Your task to perform on an android device: View the shopping cart on target.com. Add "acer predator" to the cart on target.com Image 0: 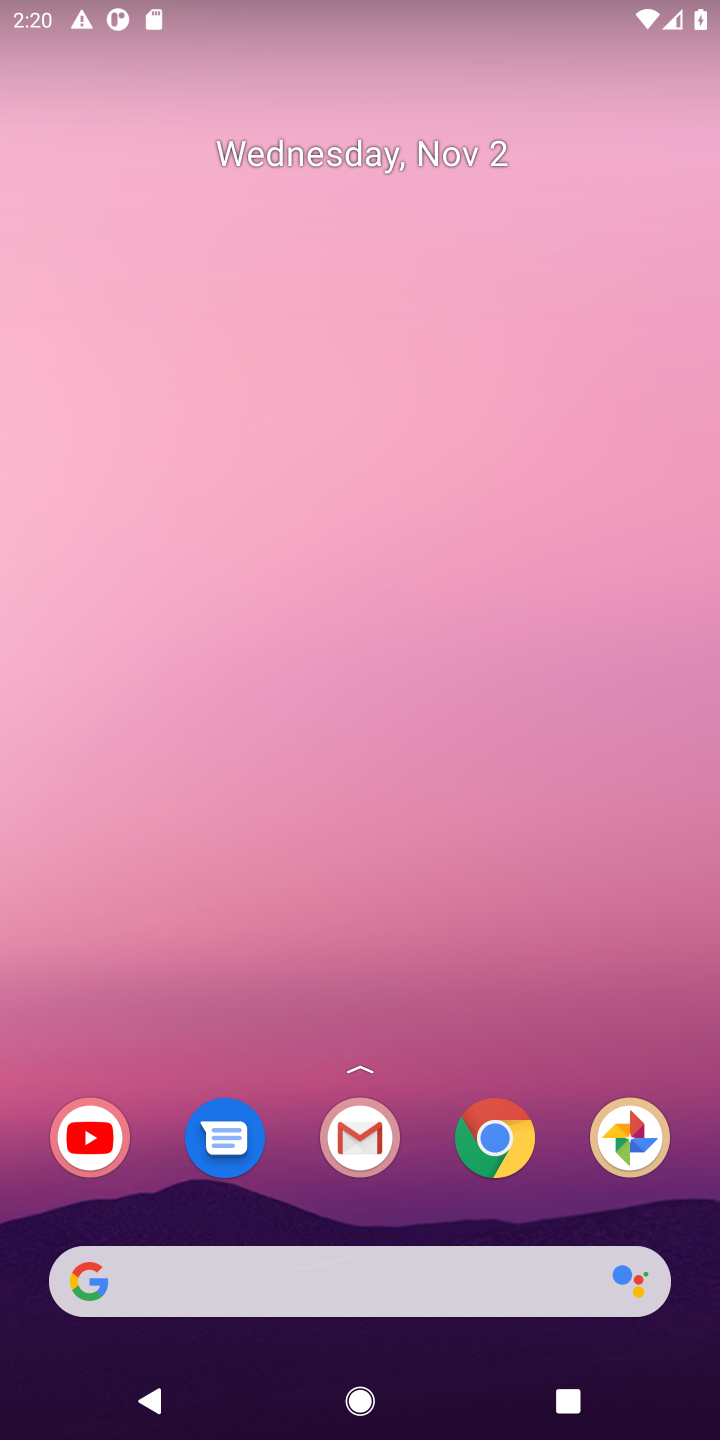
Step 0: press home button
Your task to perform on an android device: View the shopping cart on target.com. Add "acer predator" to the cart on target.com Image 1: 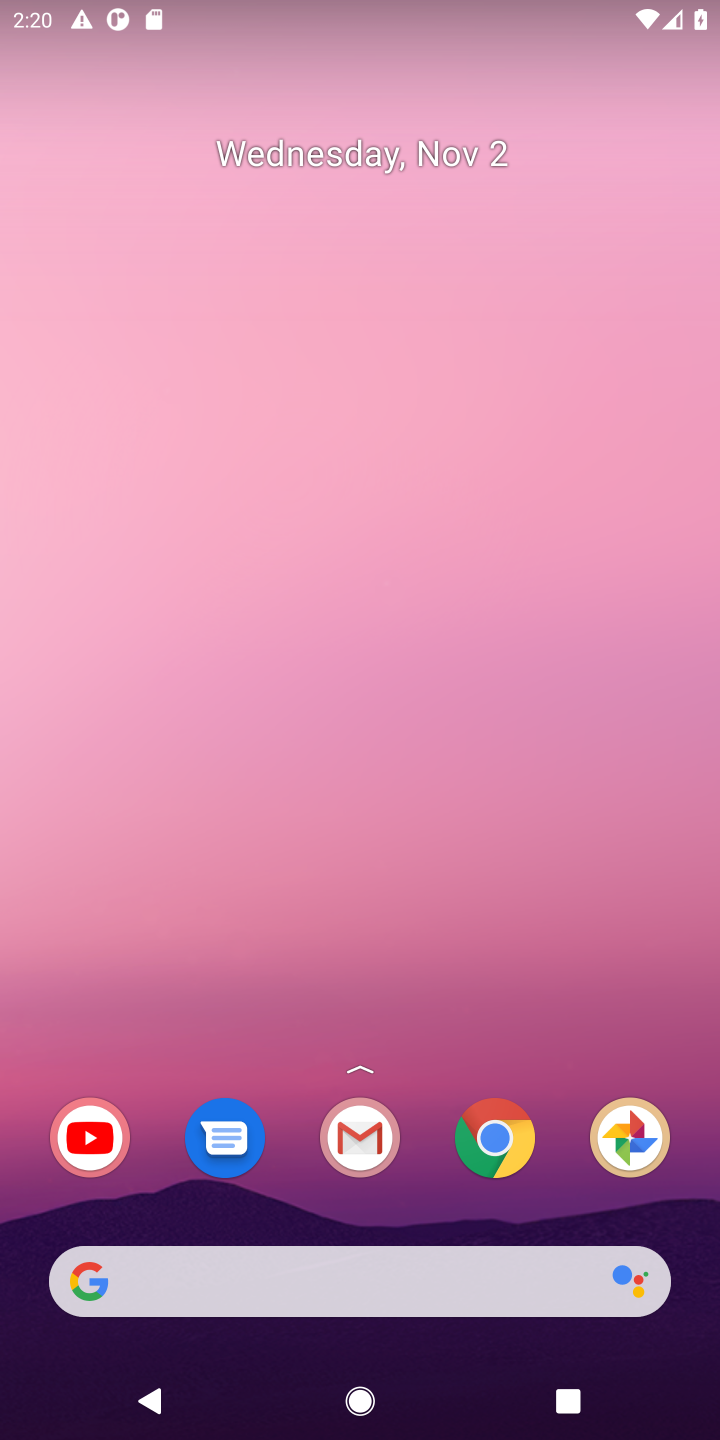
Step 1: click (155, 1274)
Your task to perform on an android device: View the shopping cart on target.com. Add "acer predator" to the cart on target.com Image 2: 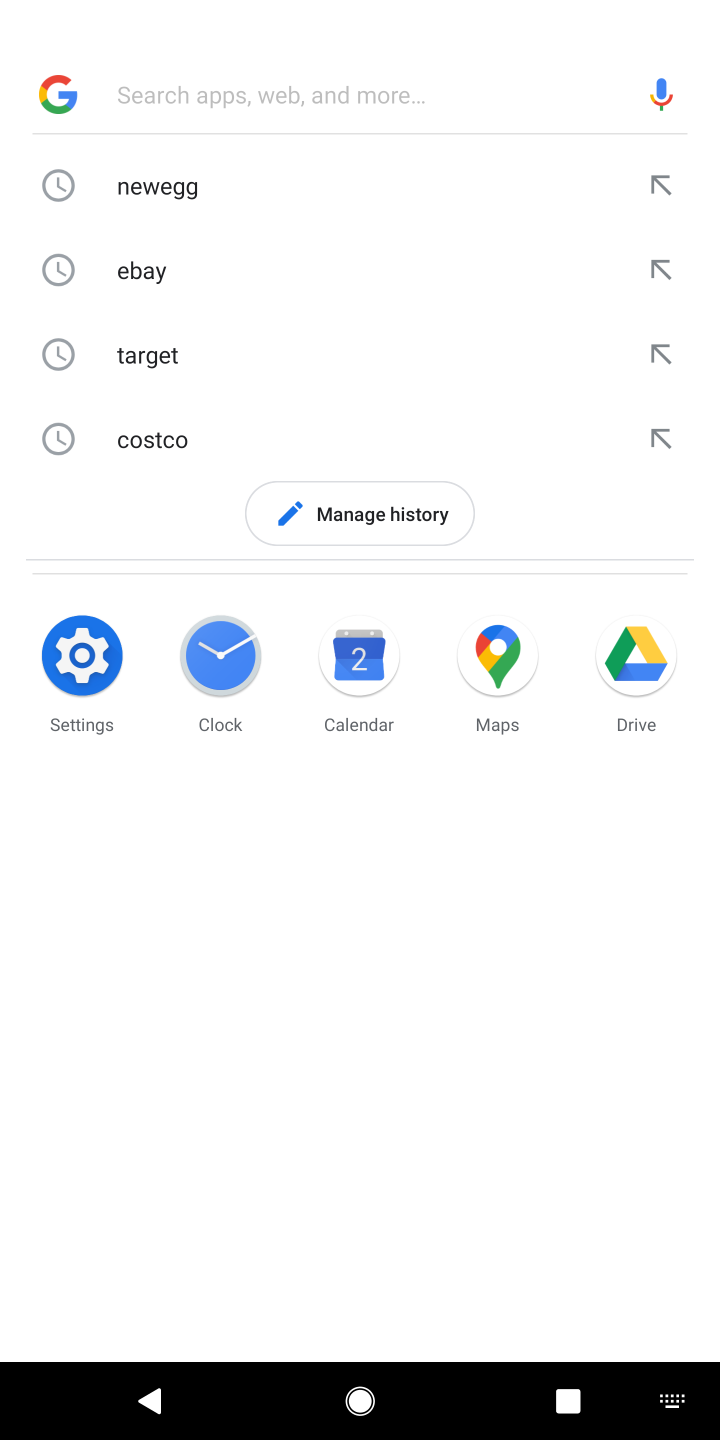
Step 2: type "target.com"
Your task to perform on an android device: View the shopping cart on target.com. Add "acer predator" to the cart on target.com Image 3: 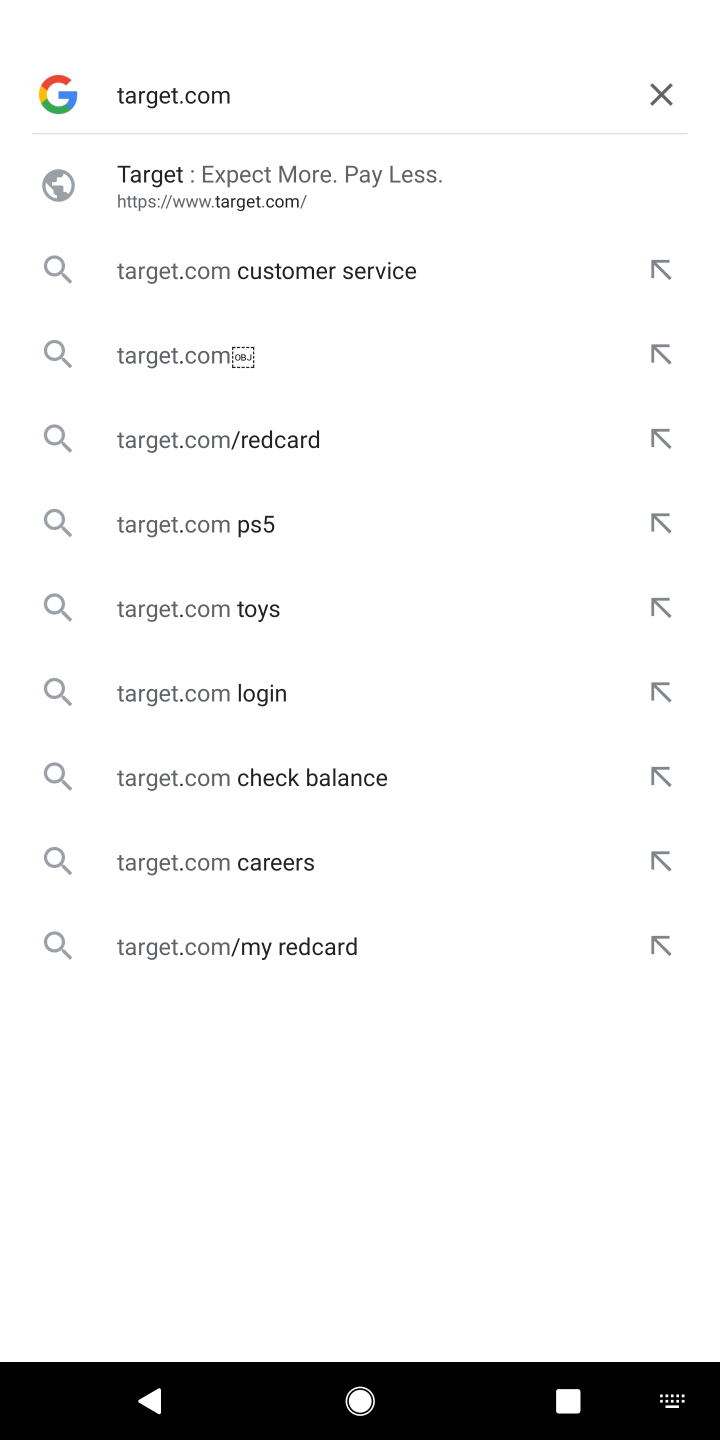
Step 3: press enter
Your task to perform on an android device: View the shopping cart on target.com. Add "acer predator" to the cart on target.com Image 4: 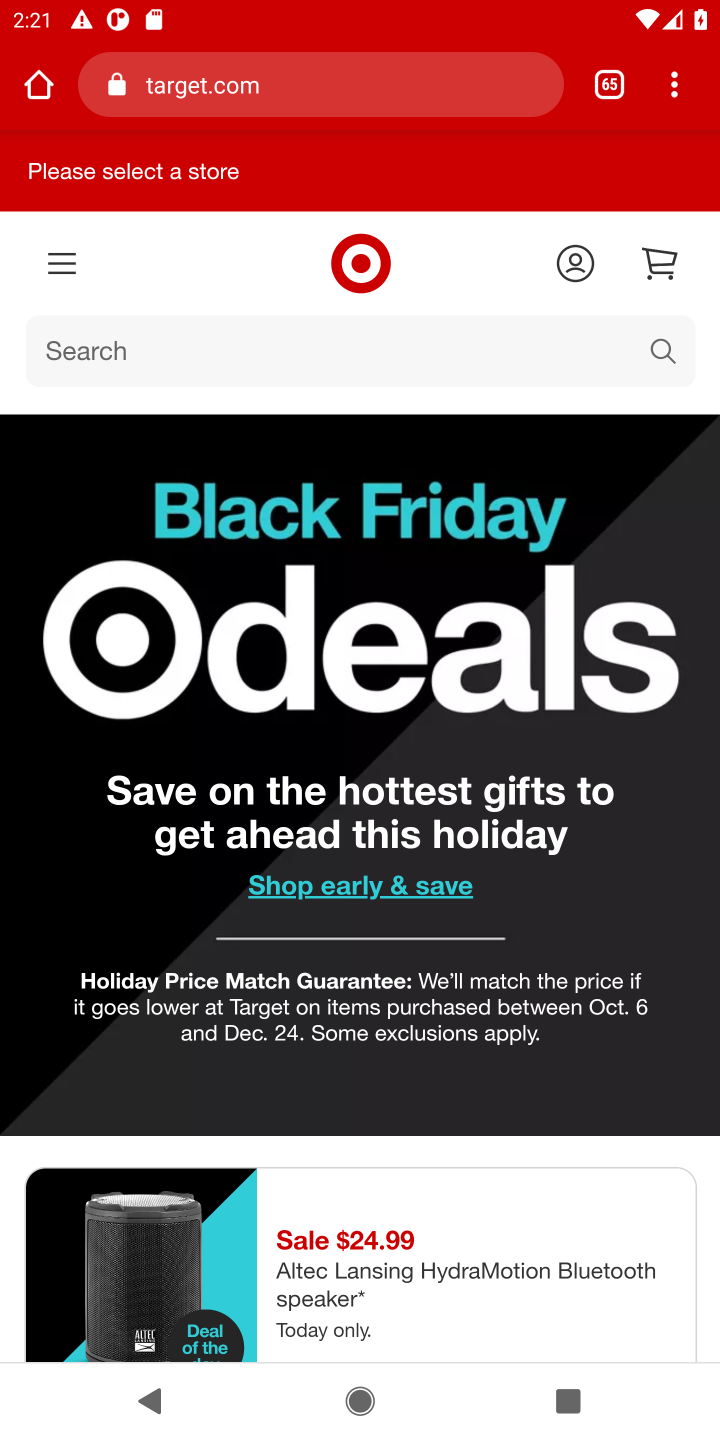
Step 4: click (657, 263)
Your task to perform on an android device: View the shopping cart on target.com. Add "acer predator" to the cart on target.com Image 5: 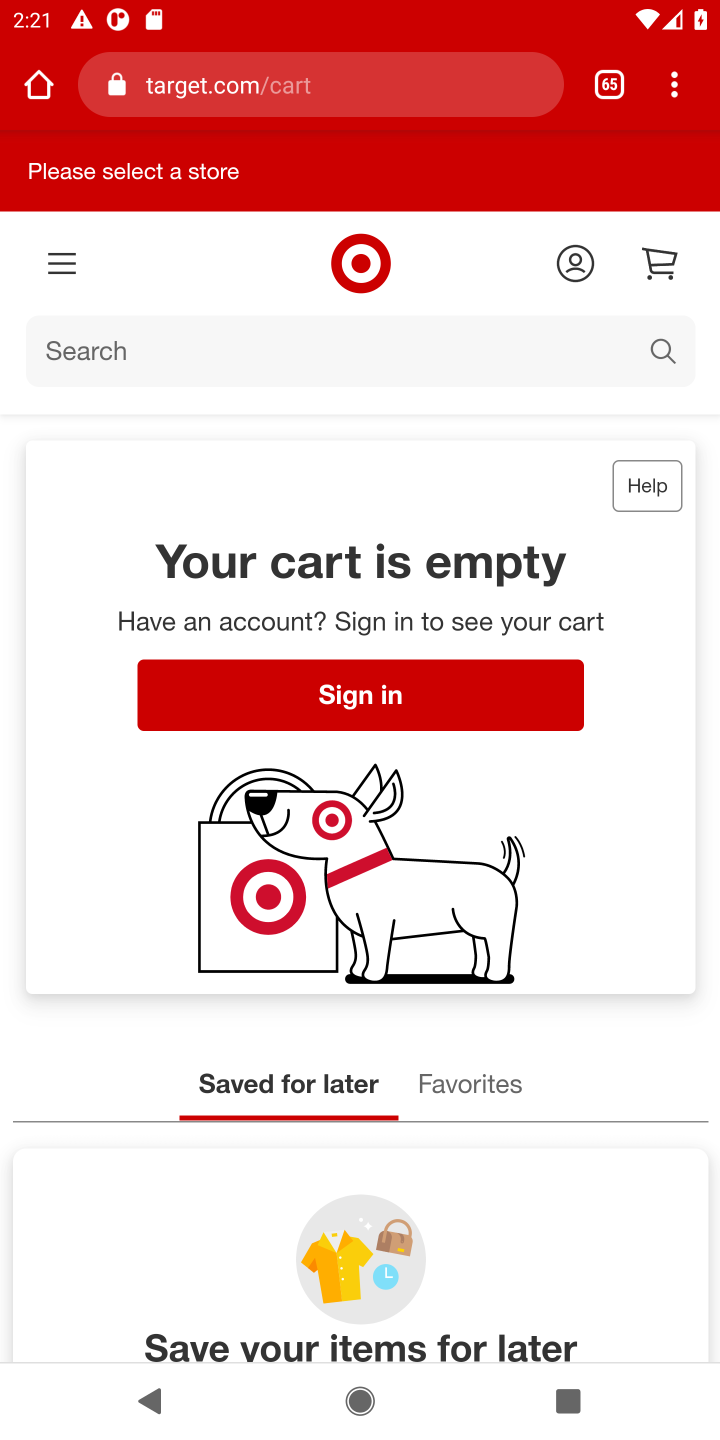
Step 5: click (167, 357)
Your task to perform on an android device: View the shopping cart on target.com. Add "acer predator" to the cart on target.com Image 6: 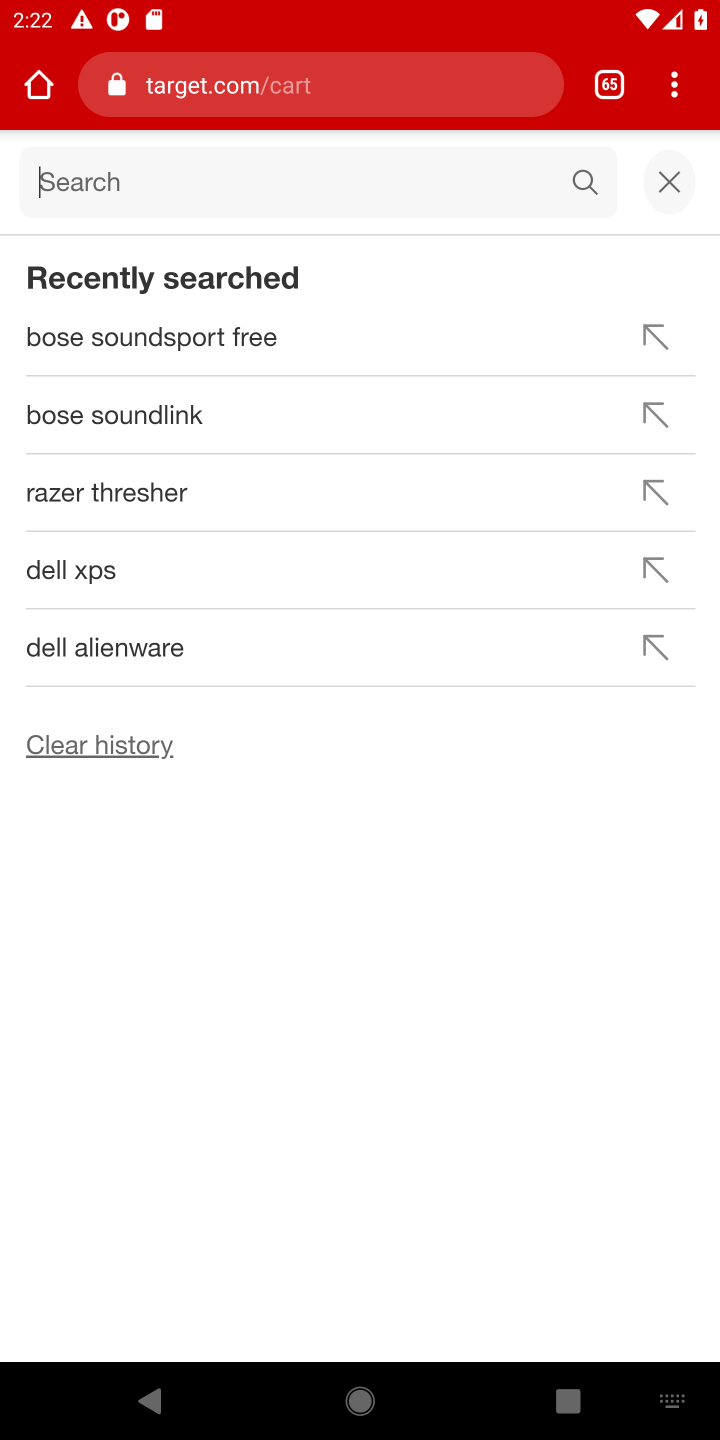
Step 6: press enter
Your task to perform on an android device: View the shopping cart on target.com. Add "acer predator" to the cart on target.com Image 7: 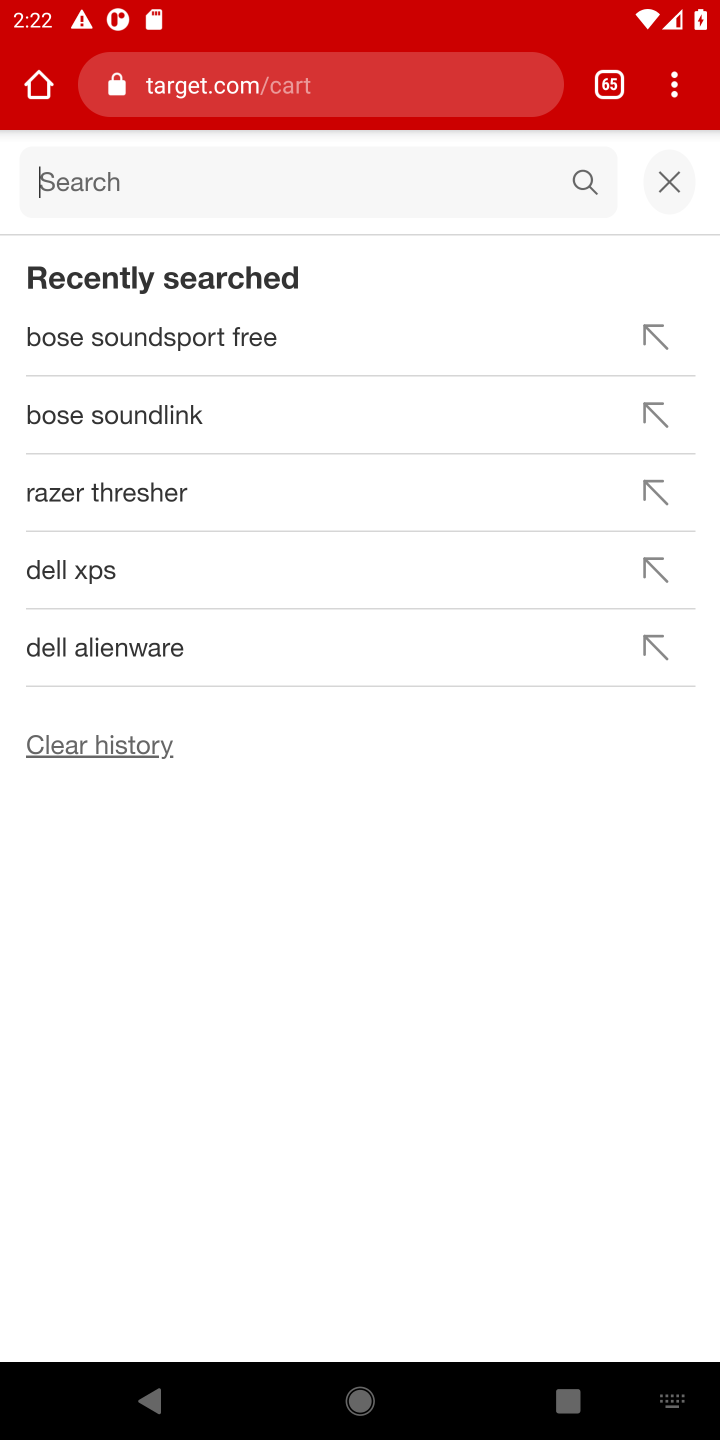
Step 7: type "acer predator"
Your task to perform on an android device: View the shopping cart on target.com. Add "acer predator" to the cart on target.com Image 8: 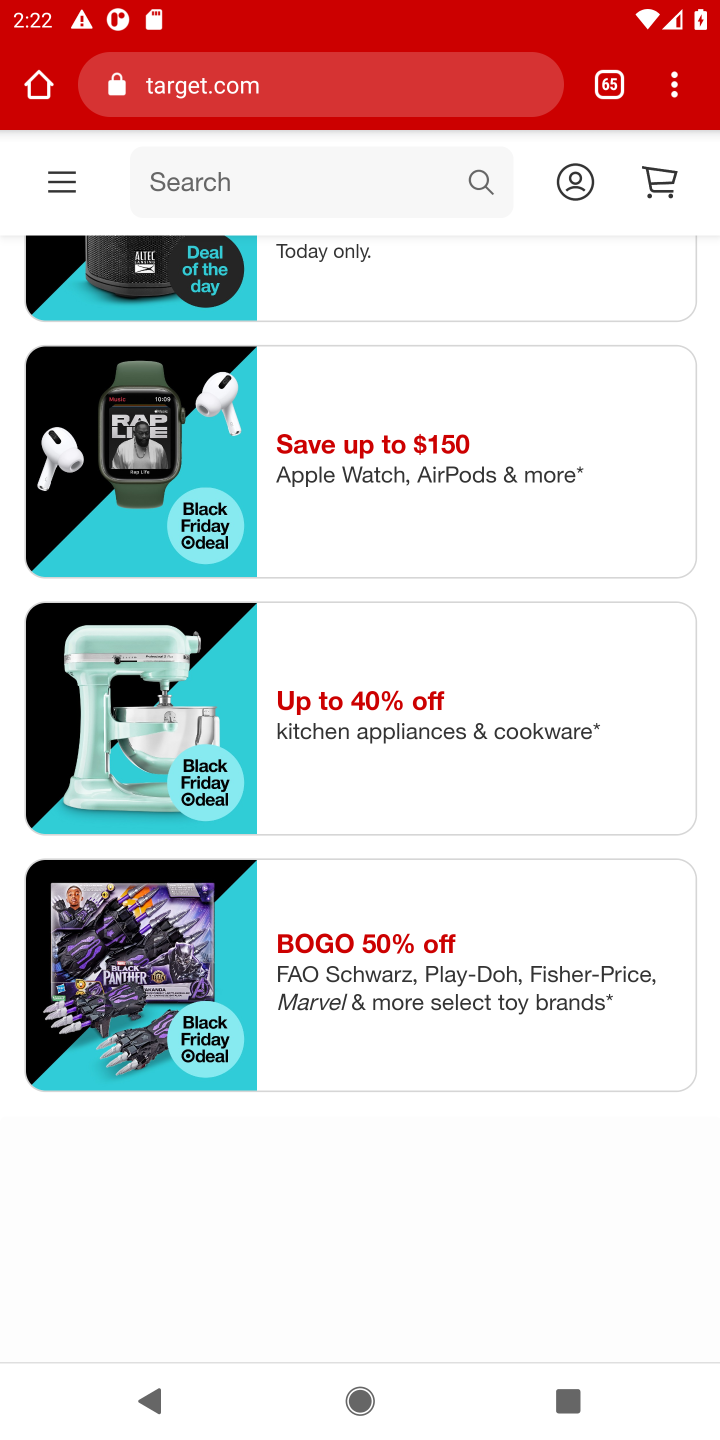
Step 8: drag from (503, 408) to (461, 757)
Your task to perform on an android device: View the shopping cart on target.com. Add "acer predator" to the cart on target.com Image 9: 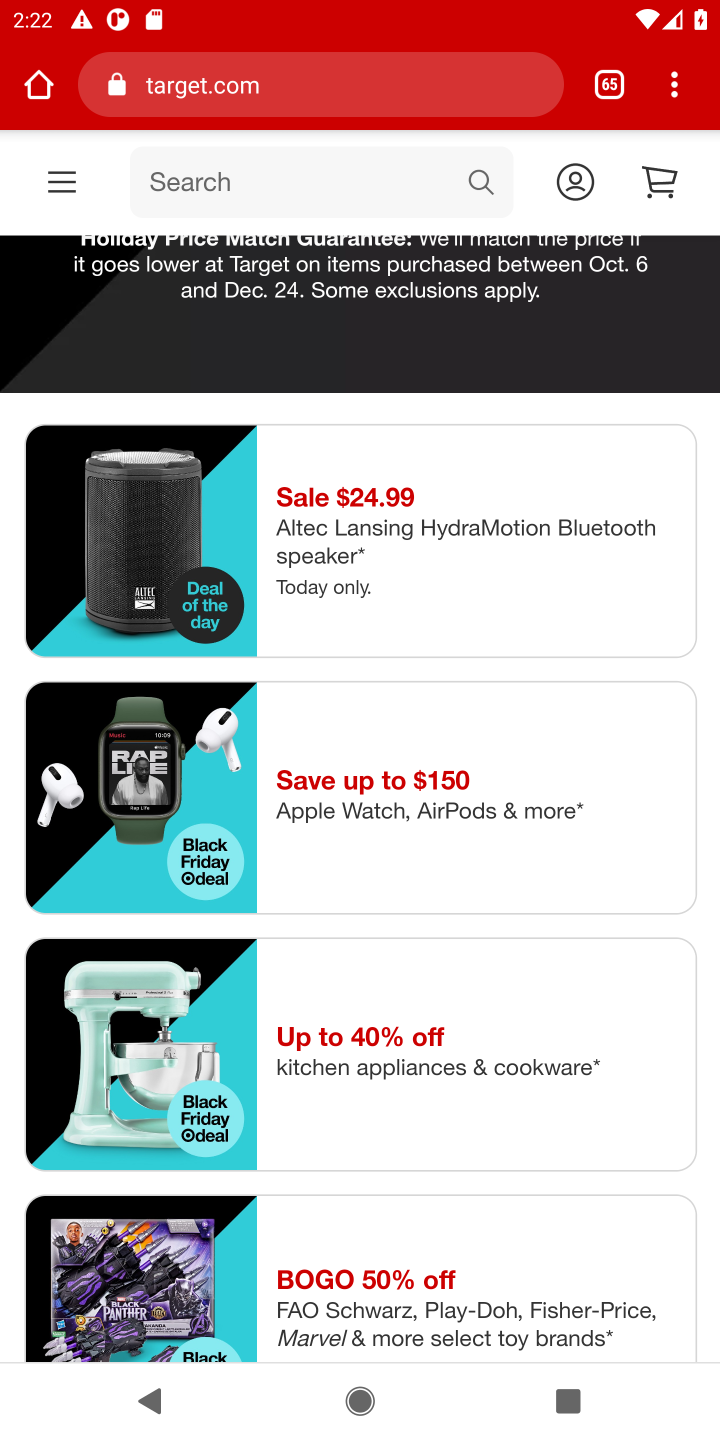
Step 9: click (240, 187)
Your task to perform on an android device: View the shopping cart on target.com. Add "acer predator" to the cart on target.com Image 10: 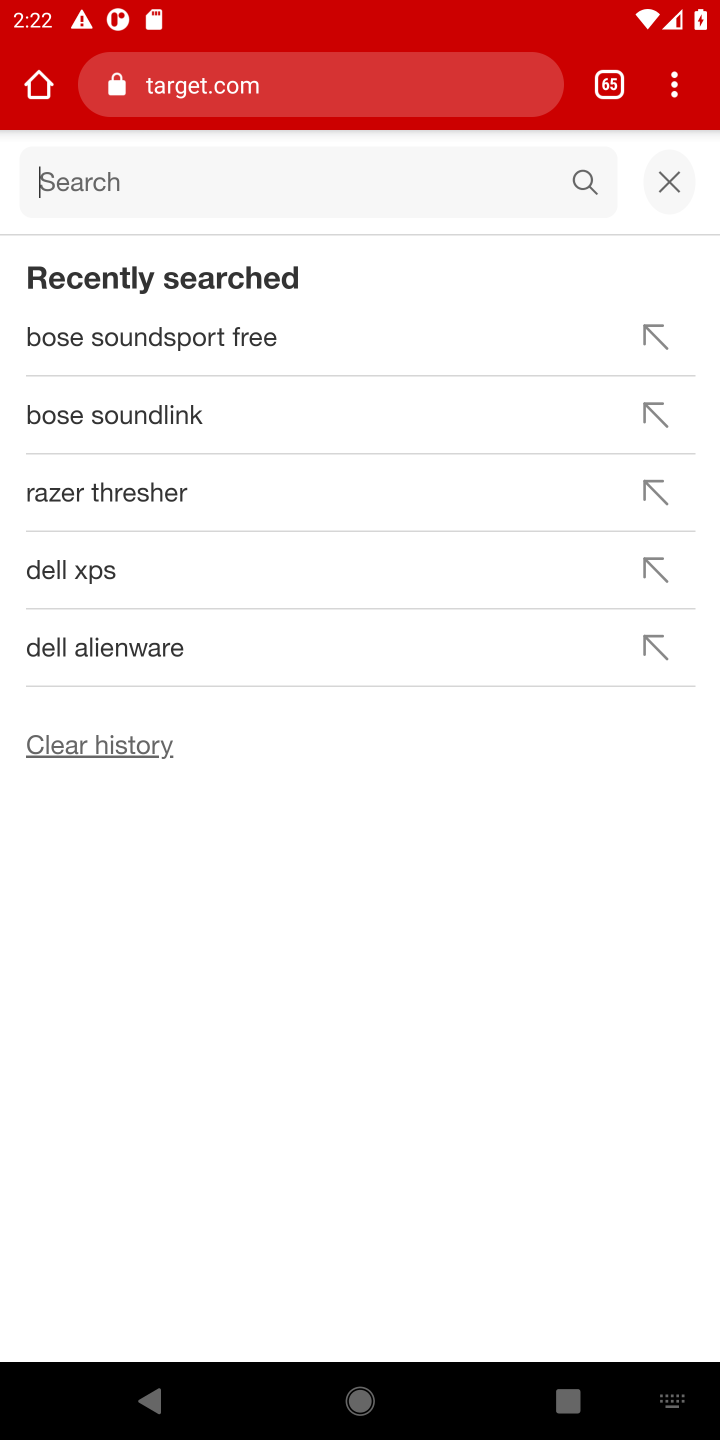
Step 10: type "acer predator"
Your task to perform on an android device: View the shopping cart on target.com. Add "acer predator" to the cart on target.com Image 11: 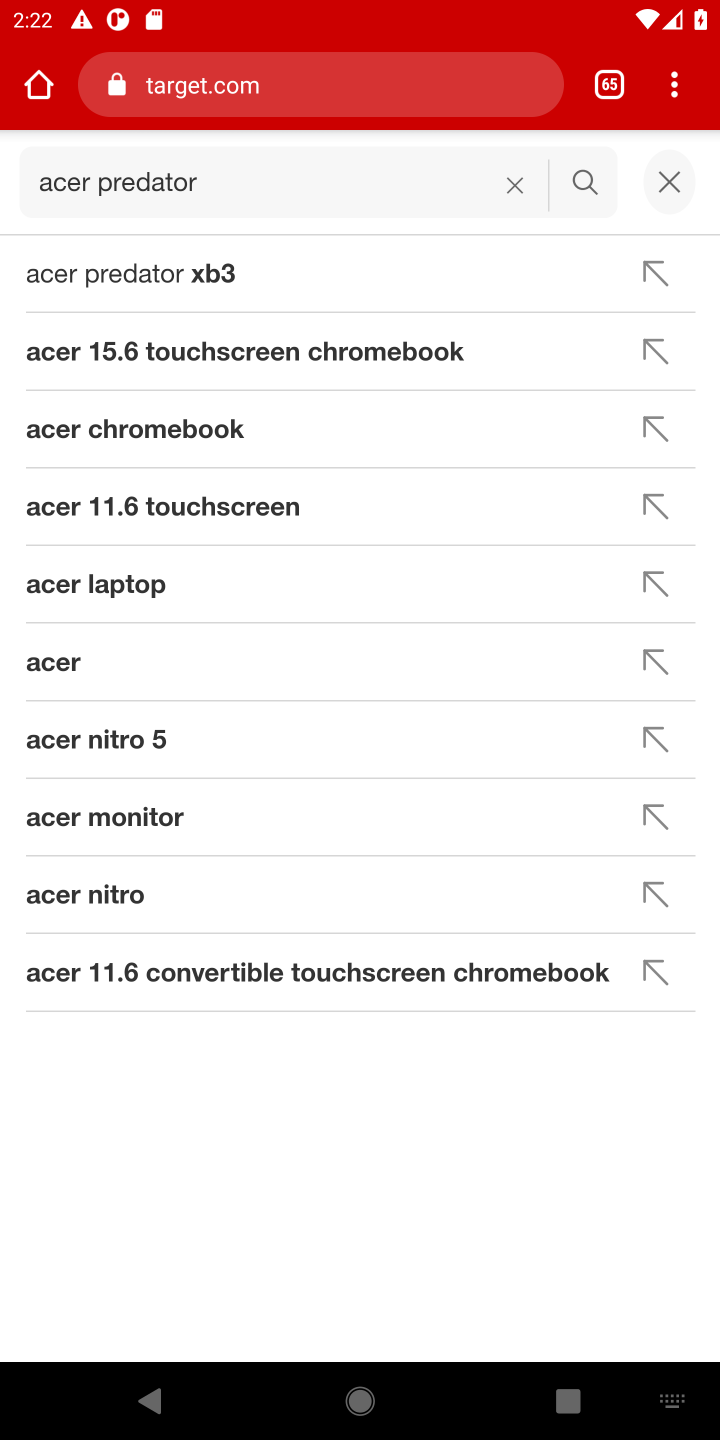
Step 11: click (575, 183)
Your task to perform on an android device: View the shopping cart on target.com. Add "acer predator" to the cart on target.com Image 12: 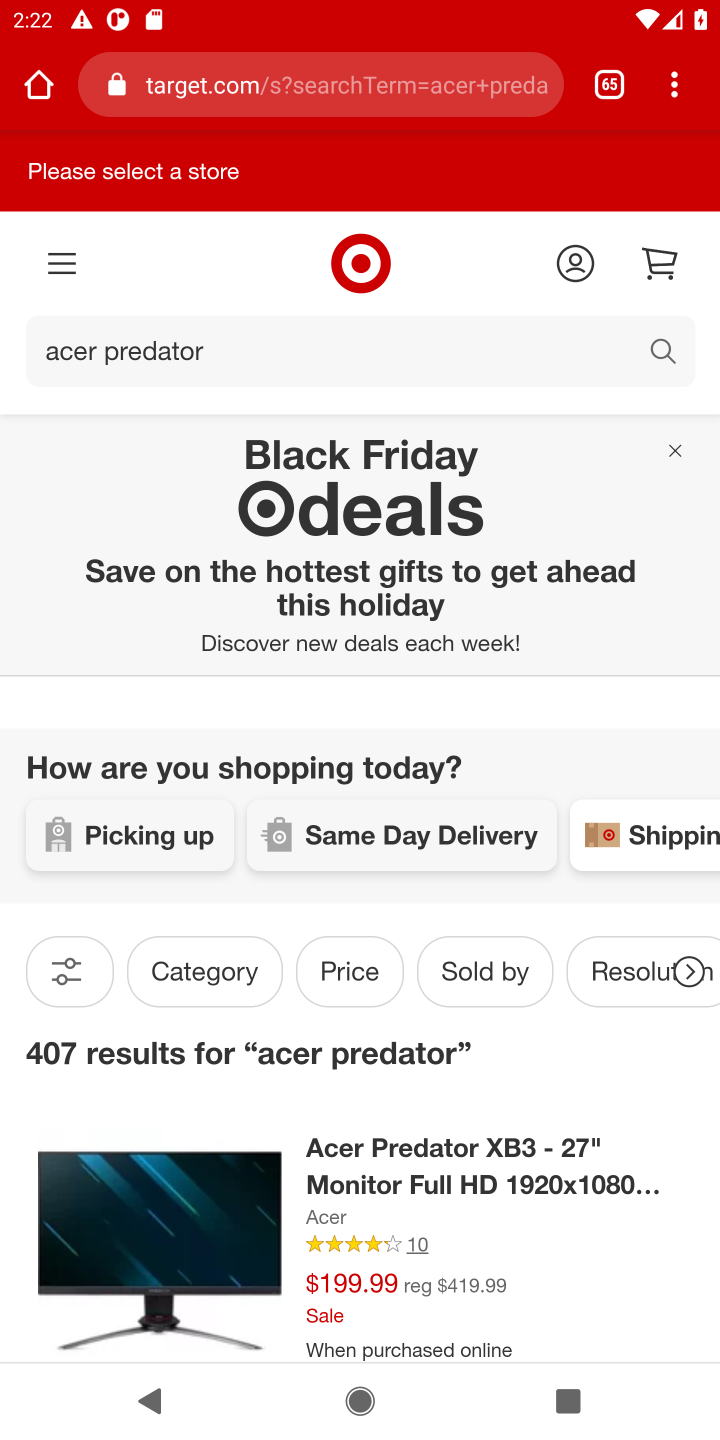
Step 12: drag from (531, 1231) to (520, 761)
Your task to perform on an android device: View the shopping cart on target.com. Add "acer predator" to the cart on target.com Image 13: 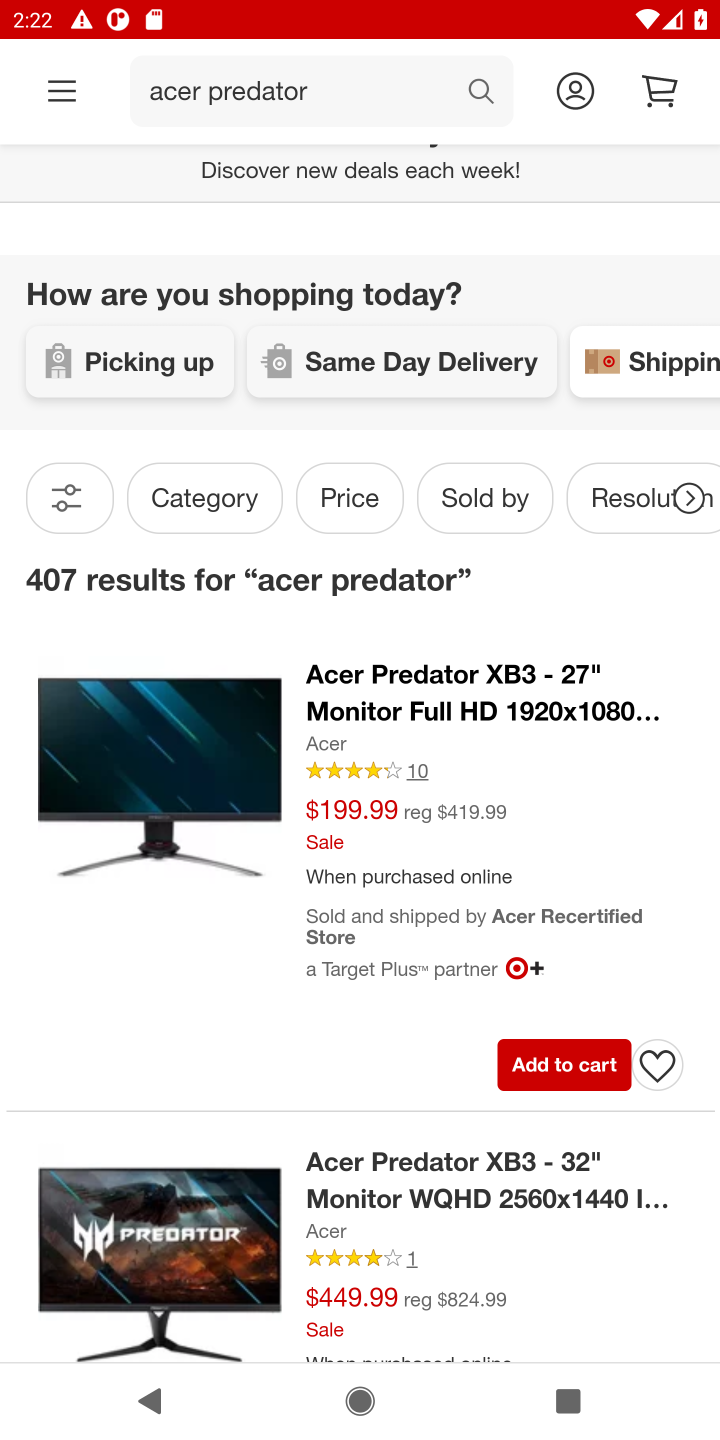
Step 13: click (570, 1072)
Your task to perform on an android device: View the shopping cart on target.com. Add "acer predator" to the cart on target.com Image 14: 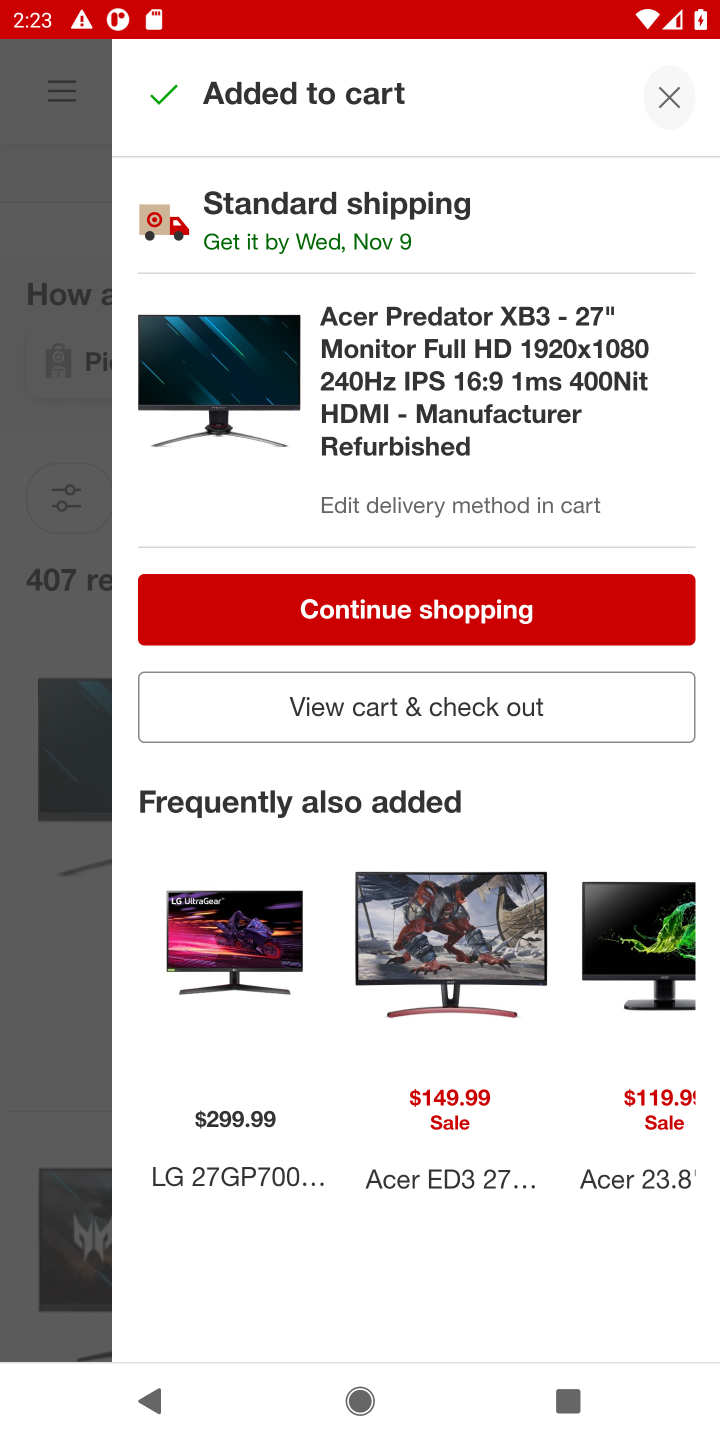
Step 14: task complete